Your task to perform on an android device: turn on location history Image 0: 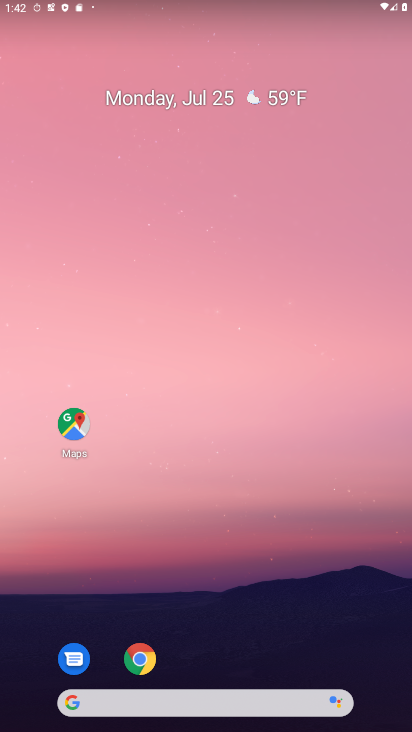
Step 0: click (84, 417)
Your task to perform on an android device: turn on location history Image 1: 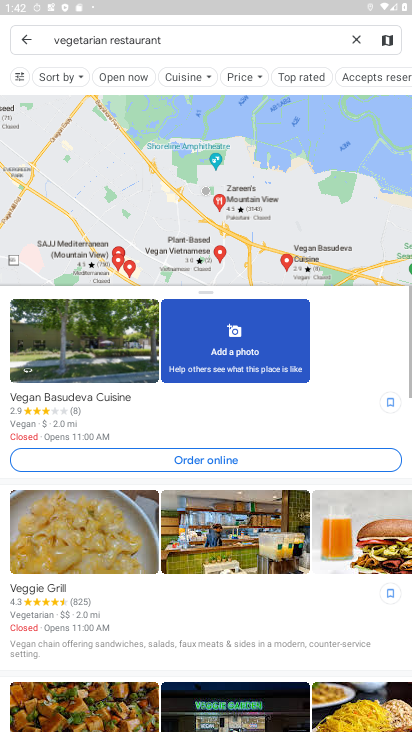
Step 1: click (355, 35)
Your task to perform on an android device: turn on location history Image 2: 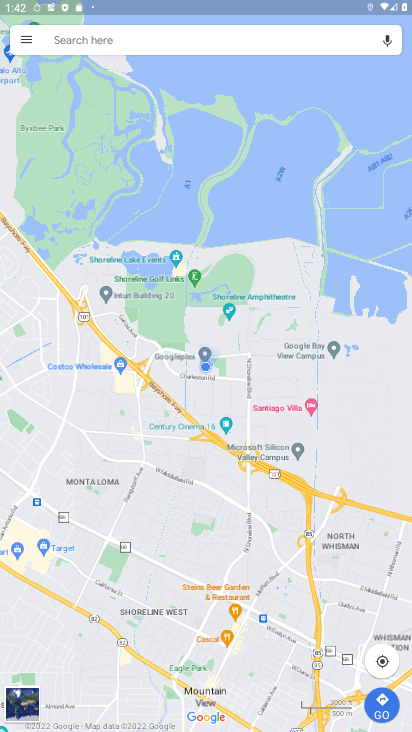
Step 2: click (31, 40)
Your task to perform on an android device: turn on location history Image 3: 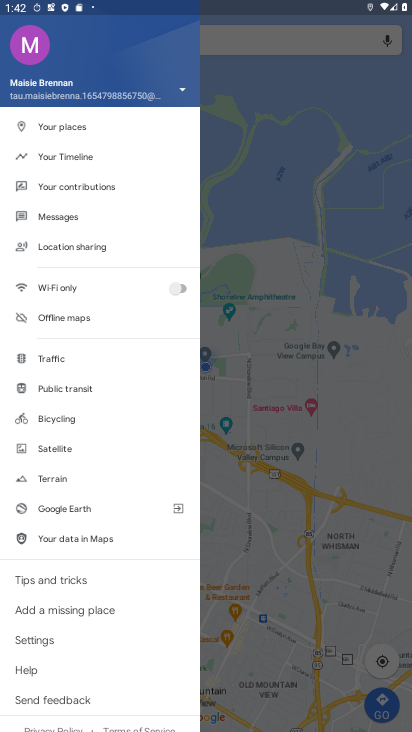
Step 3: click (77, 164)
Your task to perform on an android device: turn on location history Image 4: 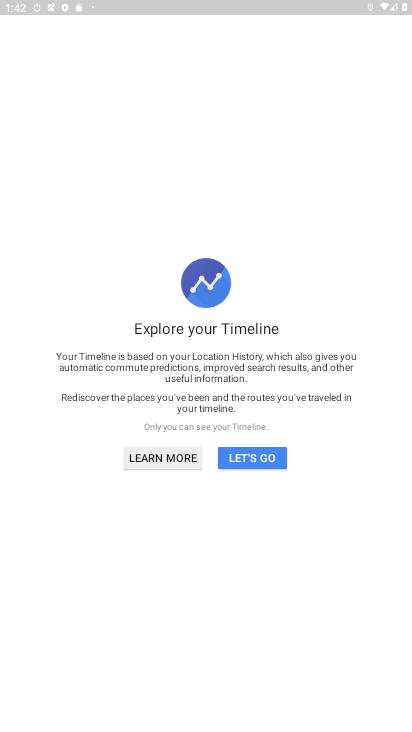
Step 4: click (272, 448)
Your task to perform on an android device: turn on location history Image 5: 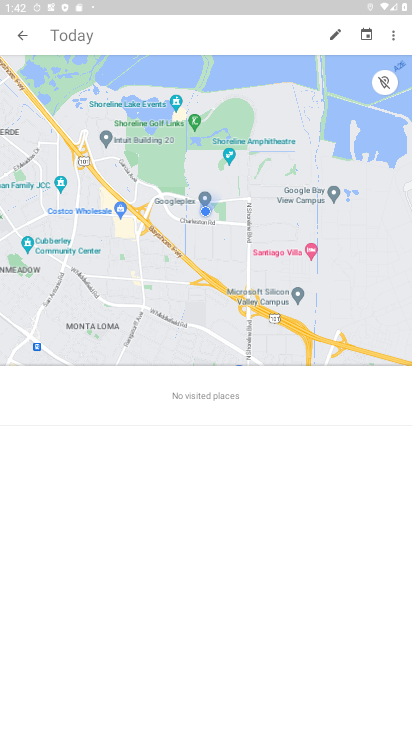
Step 5: click (389, 35)
Your task to perform on an android device: turn on location history Image 6: 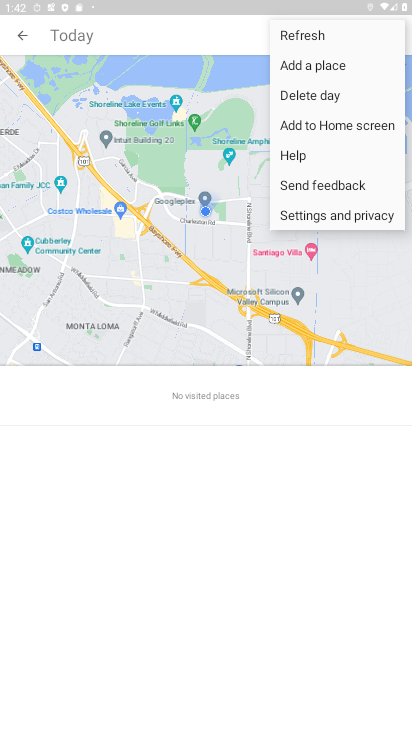
Step 6: click (338, 214)
Your task to perform on an android device: turn on location history Image 7: 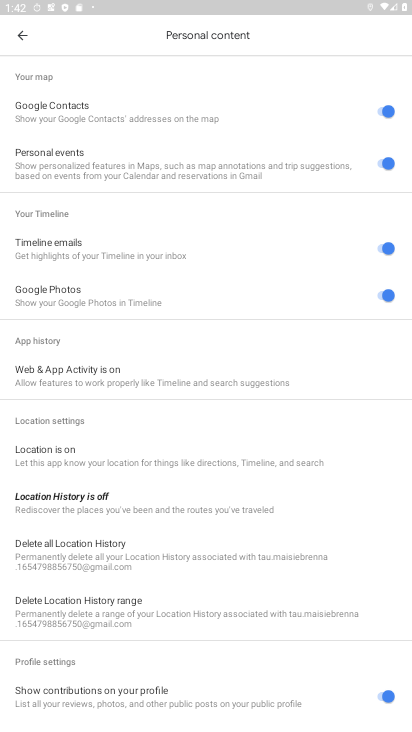
Step 7: click (89, 503)
Your task to perform on an android device: turn on location history Image 8: 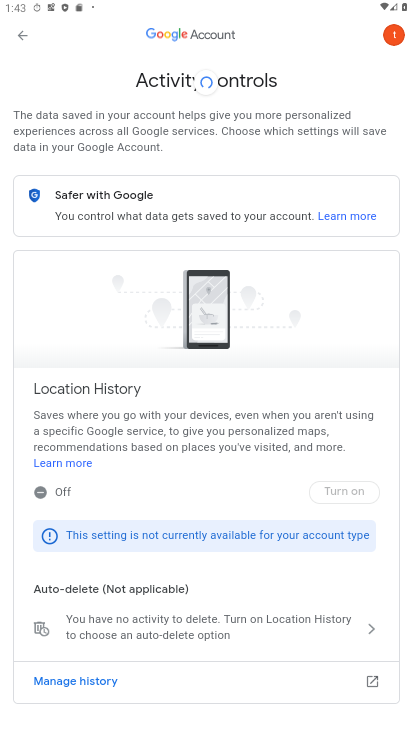
Step 8: click (349, 485)
Your task to perform on an android device: turn on location history Image 9: 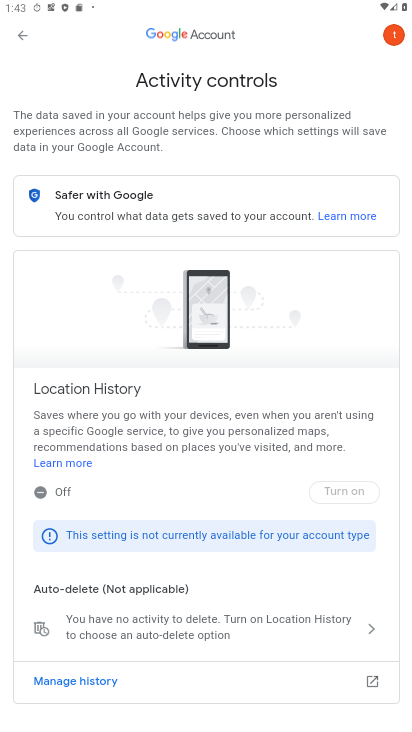
Step 9: click (349, 485)
Your task to perform on an android device: turn on location history Image 10: 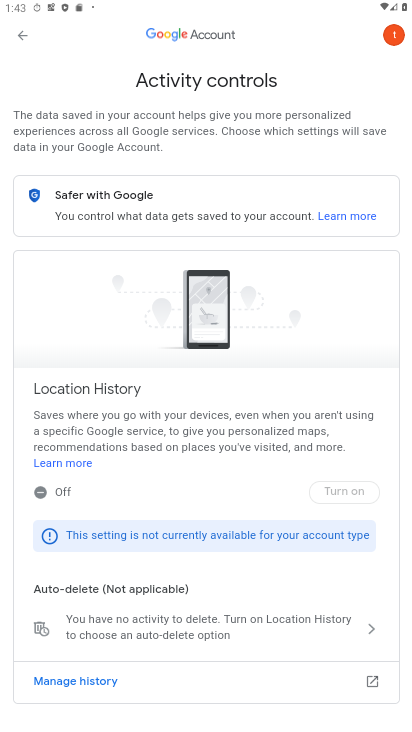
Step 10: click (256, 541)
Your task to perform on an android device: turn on location history Image 11: 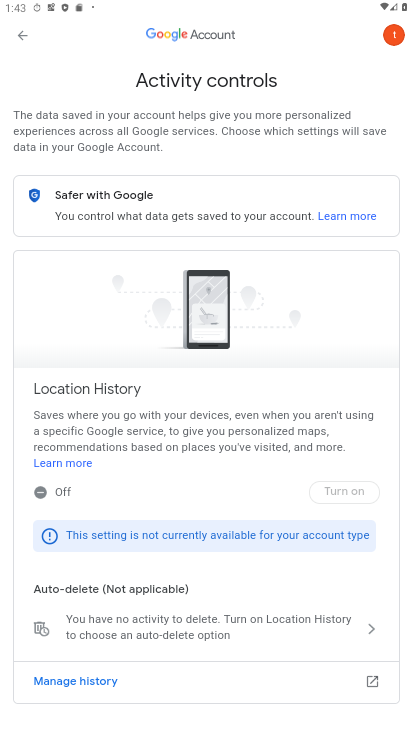
Step 11: click (56, 537)
Your task to perform on an android device: turn on location history Image 12: 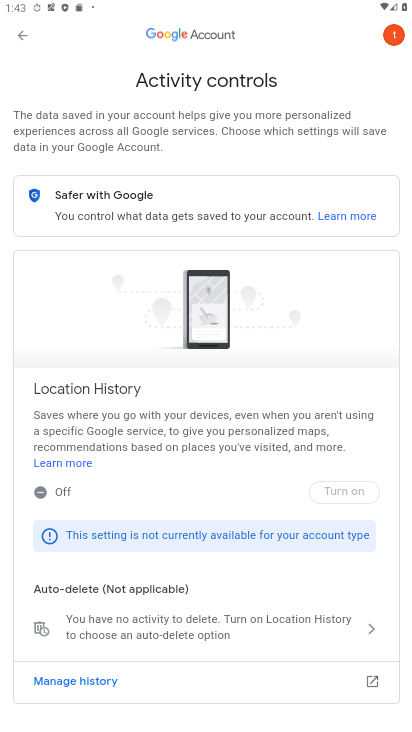
Step 12: click (341, 501)
Your task to perform on an android device: turn on location history Image 13: 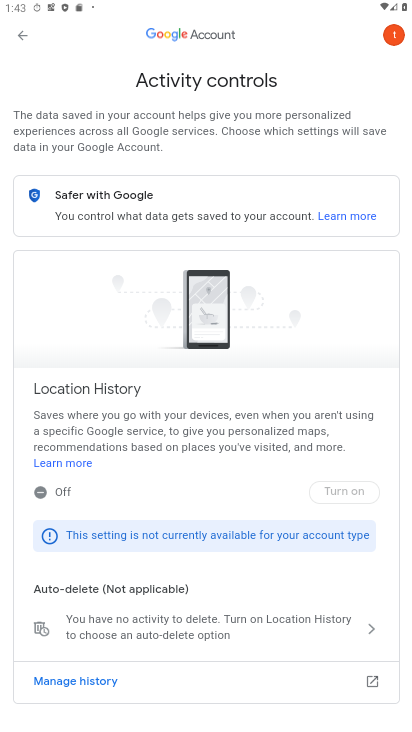
Step 13: task complete